Your task to perform on an android device: Open privacy settings Image 0: 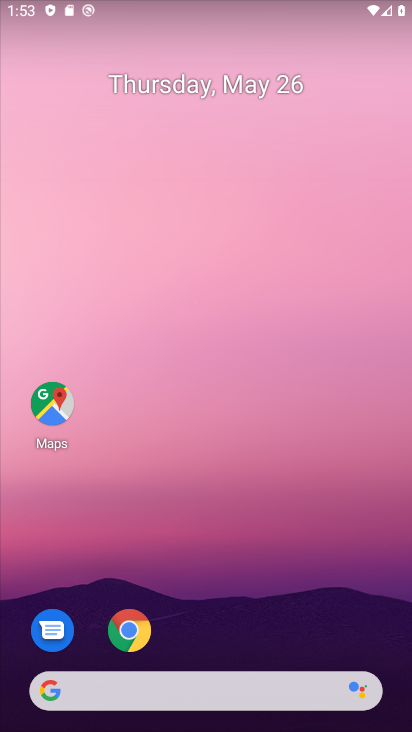
Step 0: drag from (255, 628) to (252, 433)
Your task to perform on an android device: Open privacy settings Image 1: 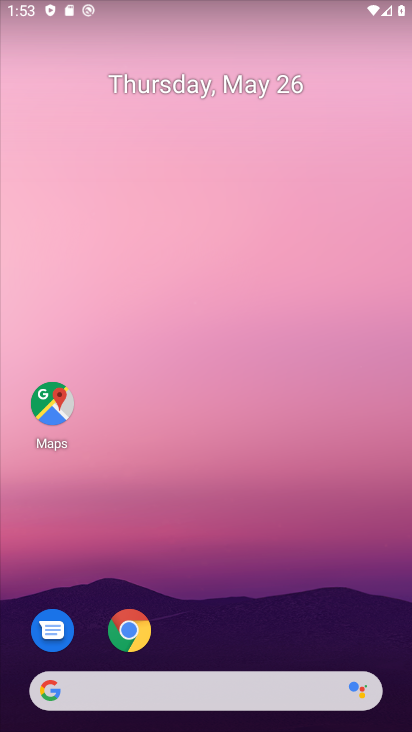
Step 1: drag from (272, 649) to (244, 312)
Your task to perform on an android device: Open privacy settings Image 2: 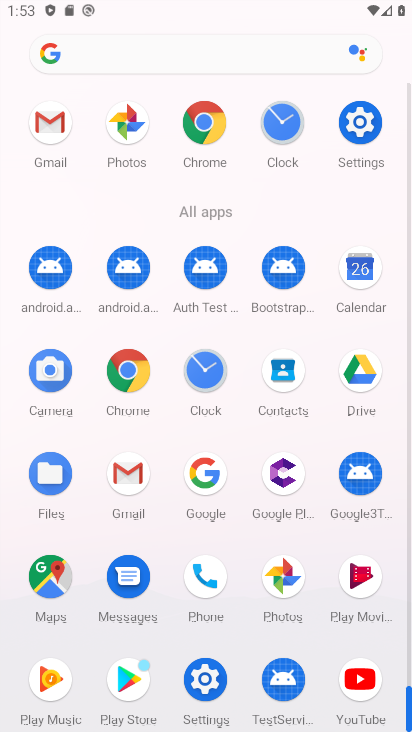
Step 2: click (356, 138)
Your task to perform on an android device: Open privacy settings Image 3: 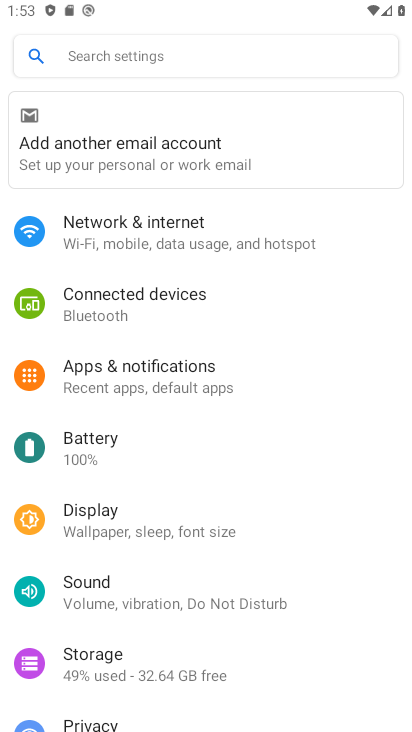
Step 3: click (198, 714)
Your task to perform on an android device: Open privacy settings Image 4: 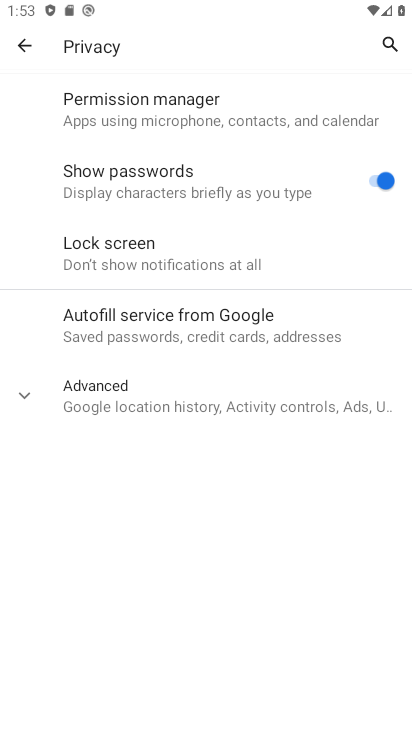
Step 4: task complete